Your task to perform on an android device: Go to location settings Image 0: 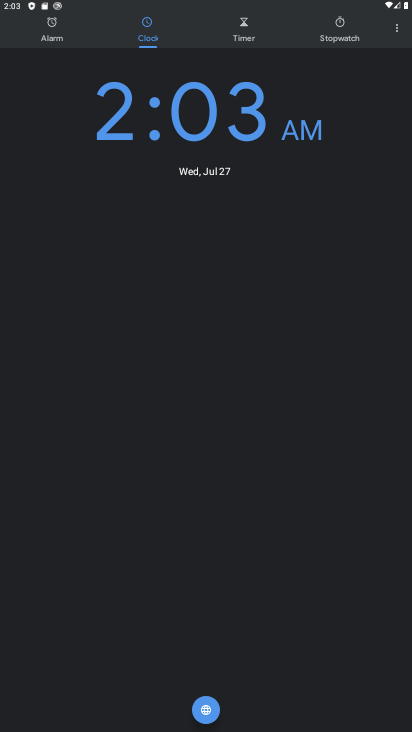
Step 0: press home button
Your task to perform on an android device: Go to location settings Image 1: 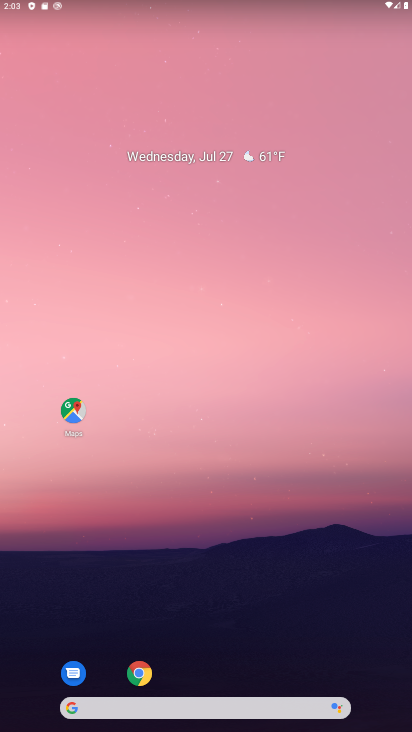
Step 1: drag from (183, 672) to (149, 166)
Your task to perform on an android device: Go to location settings Image 2: 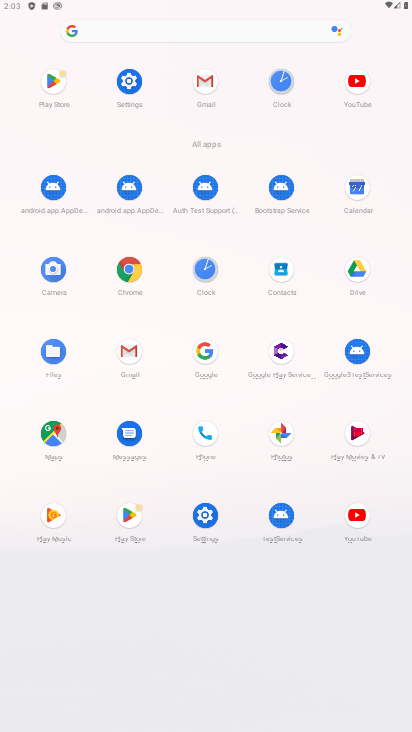
Step 2: click (137, 98)
Your task to perform on an android device: Go to location settings Image 3: 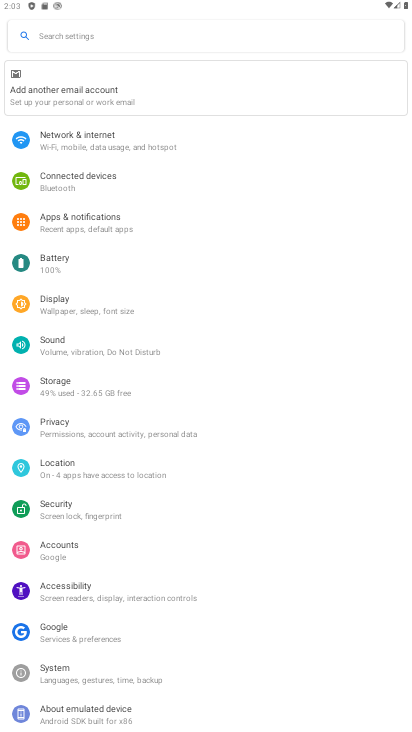
Step 3: click (107, 470)
Your task to perform on an android device: Go to location settings Image 4: 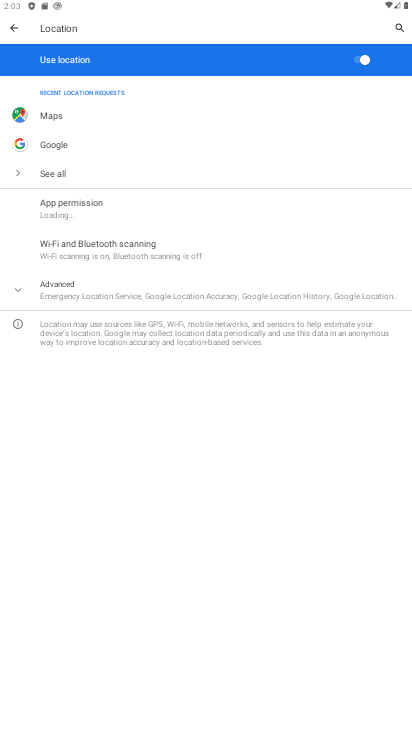
Step 4: task complete